Your task to perform on an android device: change the clock style Image 0: 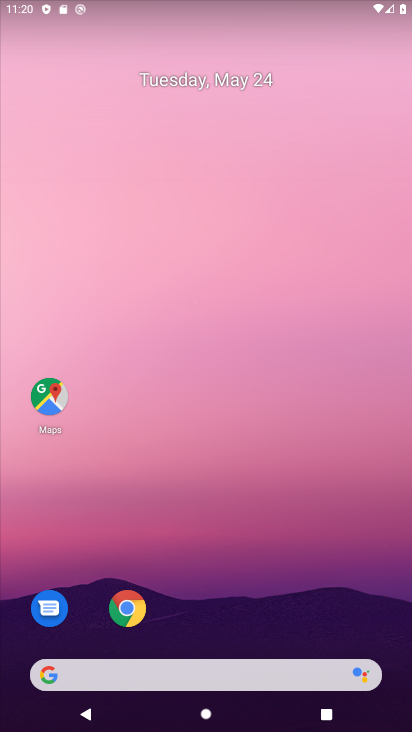
Step 0: drag from (265, 603) to (326, 185)
Your task to perform on an android device: change the clock style Image 1: 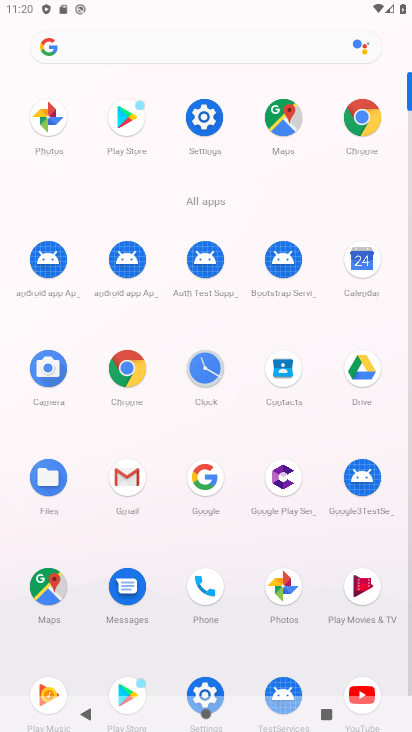
Step 1: click (206, 380)
Your task to perform on an android device: change the clock style Image 2: 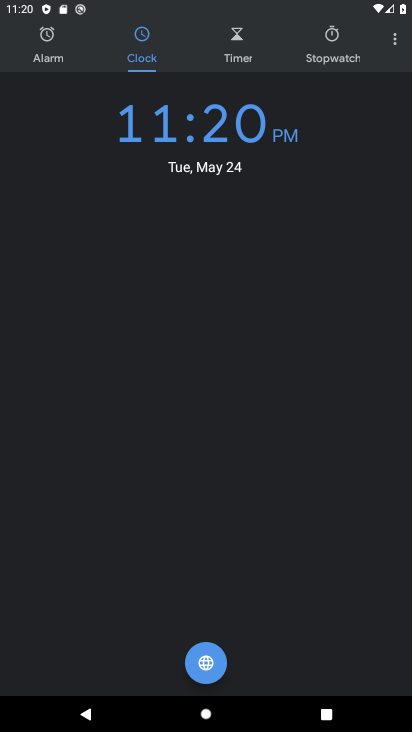
Step 2: click (391, 40)
Your task to perform on an android device: change the clock style Image 3: 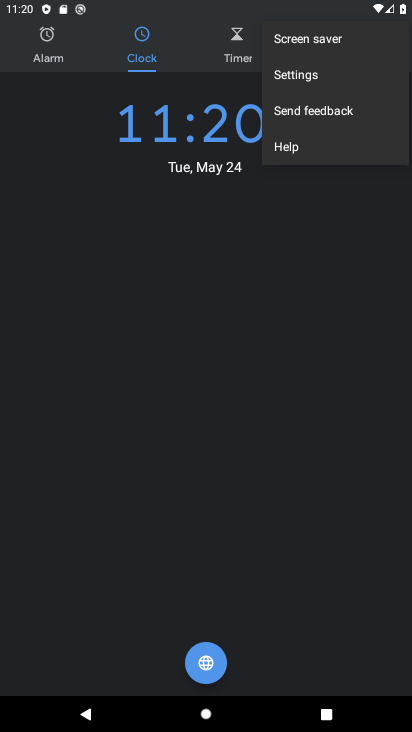
Step 3: click (322, 78)
Your task to perform on an android device: change the clock style Image 4: 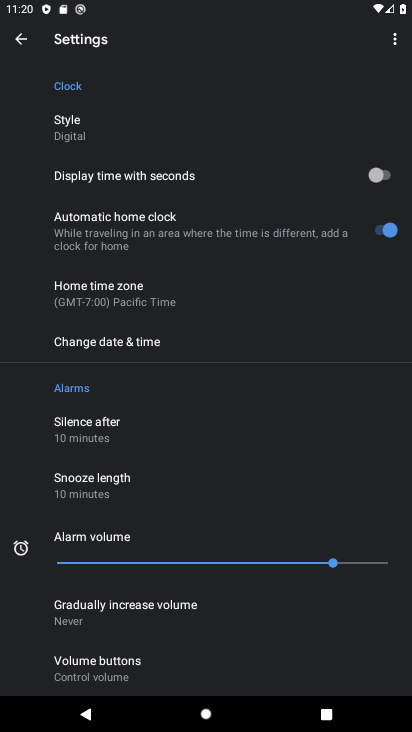
Step 4: click (180, 340)
Your task to perform on an android device: change the clock style Image 5: 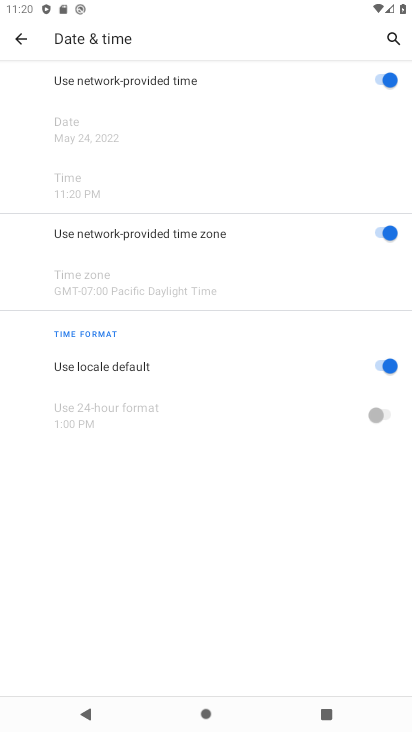
Step 5: click (34, 43)
Your task to perform on an android device: change the clock style Image 6: 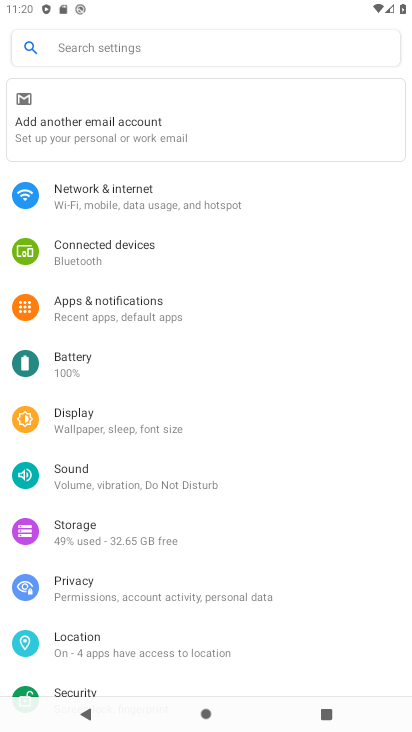
Step 6: task complete